Your task to perform on an android device: move a message to another label in the gmail app Image 0: 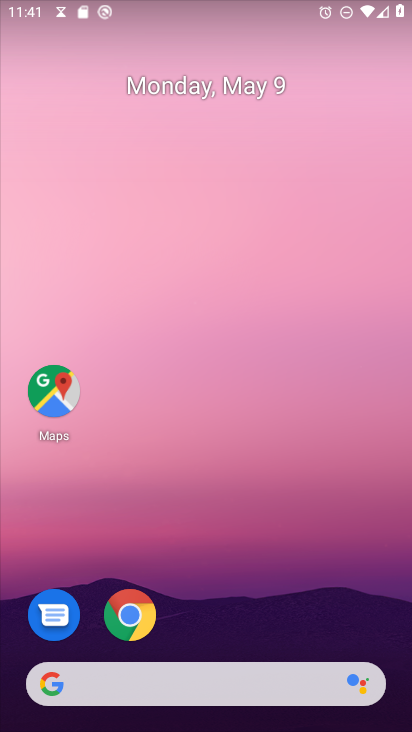
Step 0: drag from (185, 718) to (181, 167)
Your task to perform on an android device: move a message to another label in the gmail app Image 1: 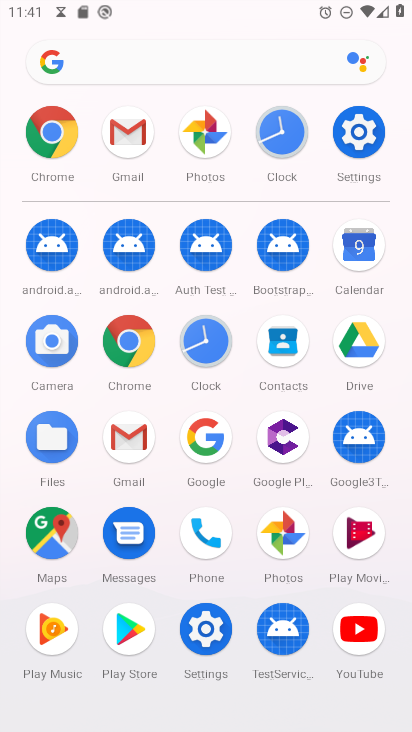
Step 1: click (129, 436)
Your task to perform on an android device: move a message to another label in the gmail app Image 2: 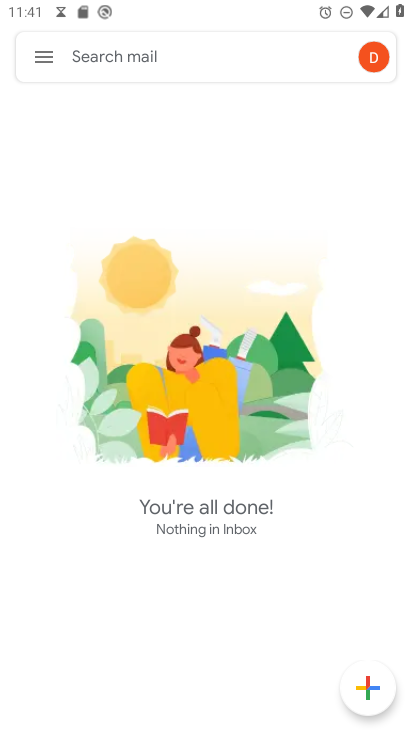
Step 2: task complete